Your task to perform on an android device: add a label to a message in the gmail app Image 0: 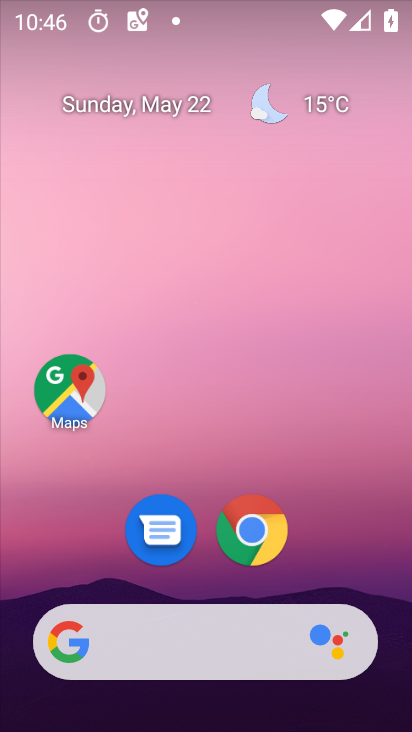
Step 0: drag from (399, 660) to (364, 153)
Your task to perform on an android device: add a label to a message in the gmail app Image 1: 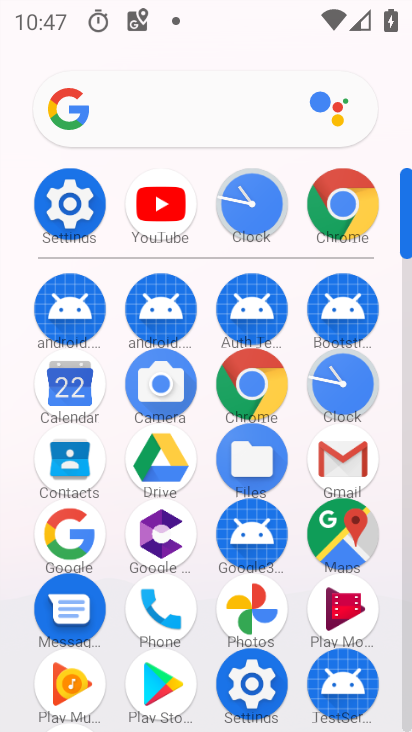
Step 1: click (346, 464)
Your task to perform on an android device: add a label to a message in the gmail app Image 2: 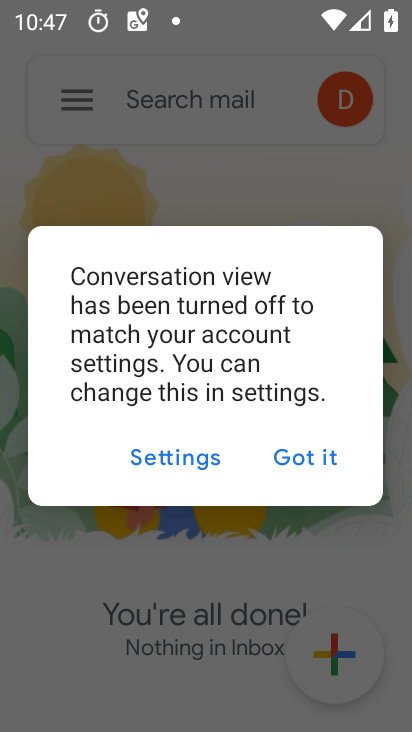
Step 2: click (298, 445)
Your task to perform on an android device: add a label to a message in the gmail app Image 3: 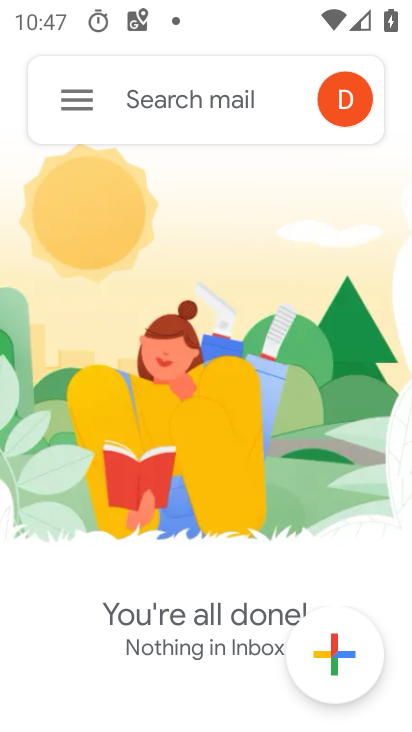
Step 3: click (77, 108)
Your task to perform on an android device: add a label to a message in the gmail app Image 4: 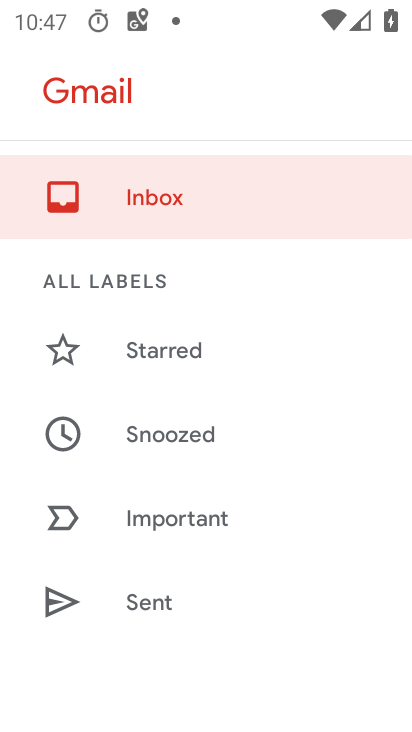
Step 4: click (129, 188)
Your task to perform on an android device: add a label to a message in the gmail app Image 5: 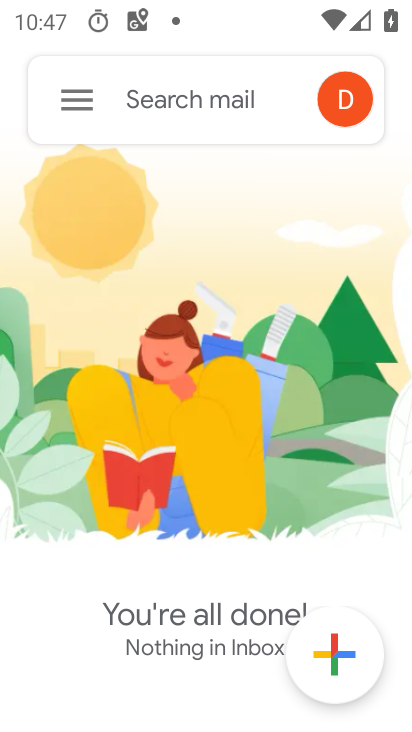
Step 5: task complete